Your task to perform on an android device: install app "LinkedIn" Image 0: 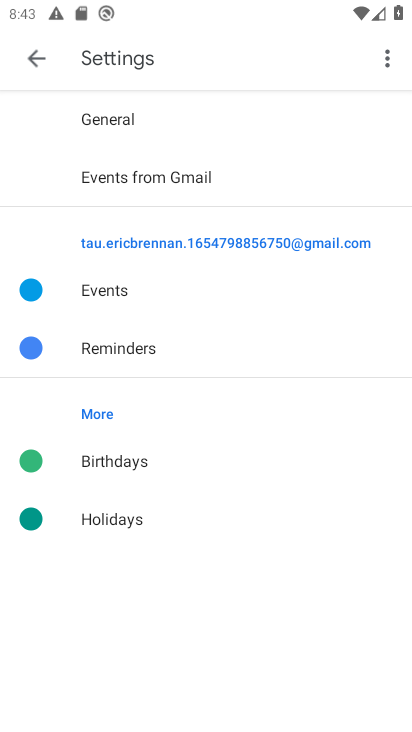
Step 0: press home button
Your task to perform on an android device: install app "LinkedIn" Image 1: 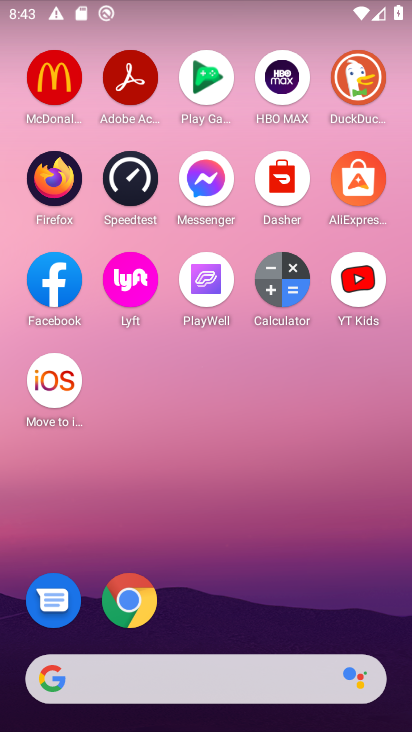
Step 1: drag from (196, 617) to (223, 223)
Your task to perform on an android device: install app "LinkedIn" Image 2: 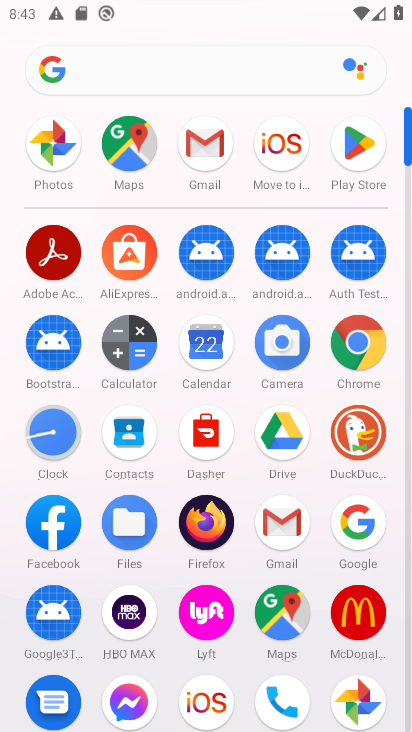
Step 2: click (358, 131)
Your task to perform on an android device: install app "LinkedIn" Image 3: 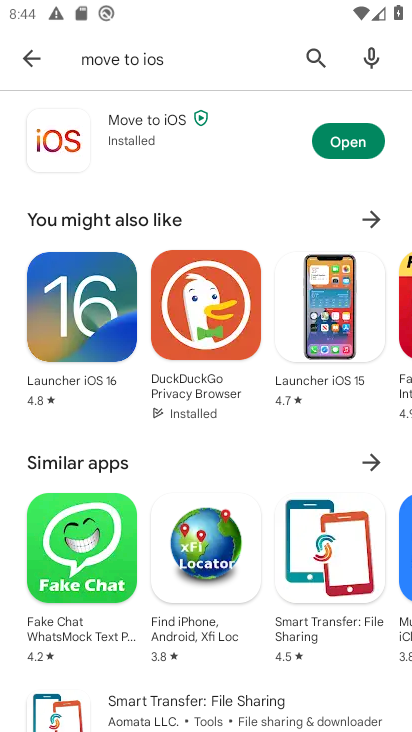
Step 3: click (305, 46)
Your task to perform on an android device: install app "LinkedIn" Image 4: 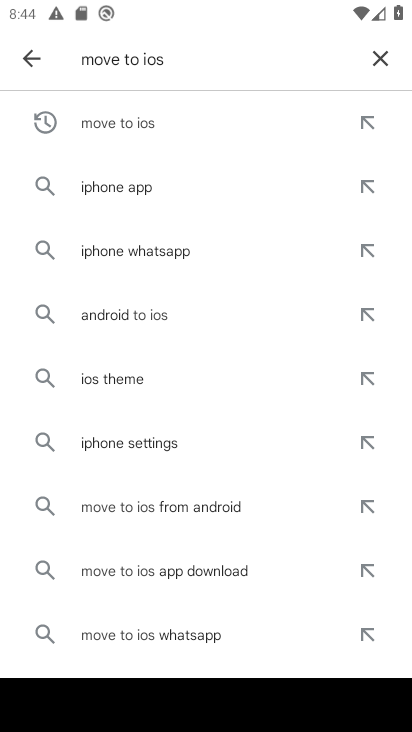
Step 4: click (377, 67)
Your task to perform on an android device: install app "LinkedIn" Image 5: 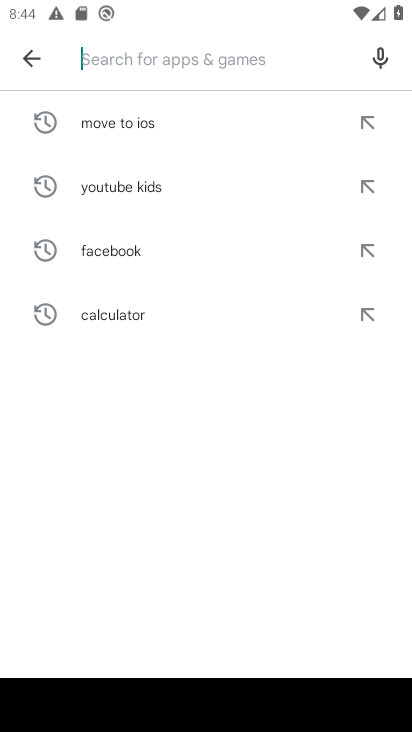
Step 5: type "LinkedIn"
Your task to perform on an android device: install app "LinkedIn" Image 6: 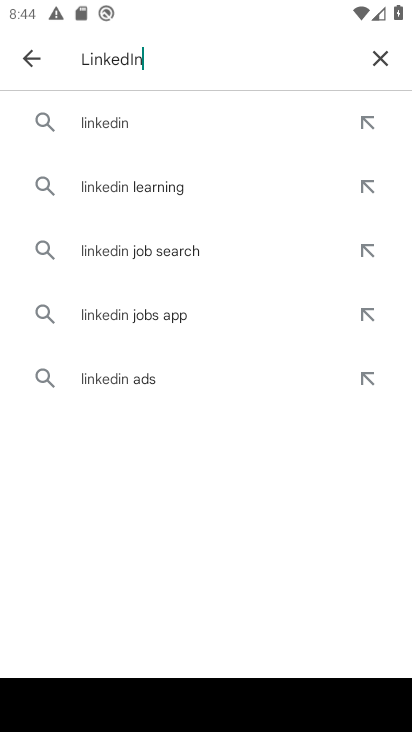
Step 6: click (139, 117)
Your task to perform on an android device: install app "LinkedIn" Image 7: 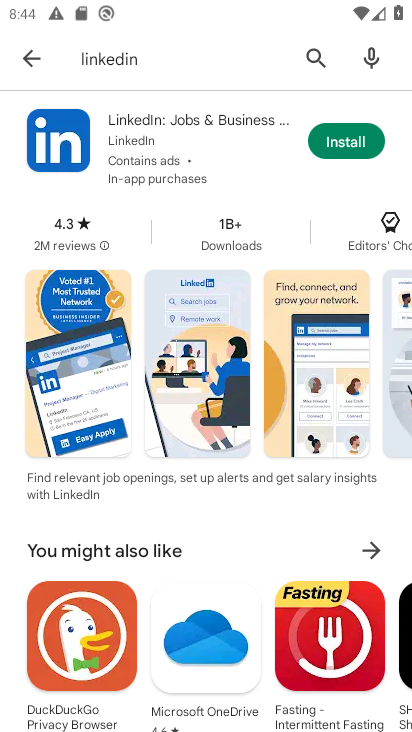
Step 7: click (330, 141)
Your task to perform on an android device: install app "LinkedIn" Image 8: 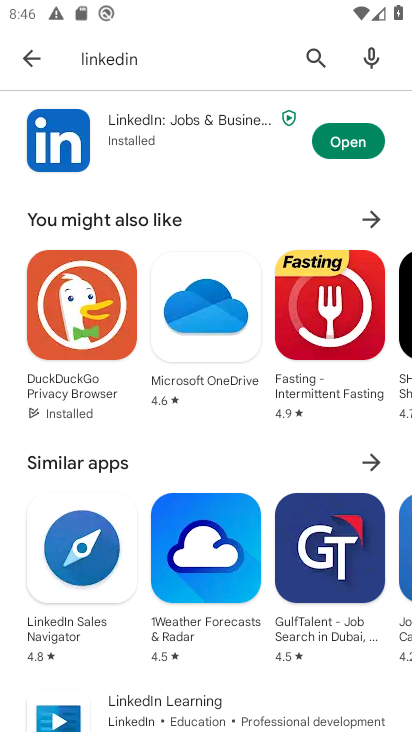
Step 8: task complete